Your task to perform on an android device: turn on notifications settings in the gmail app Image 0: 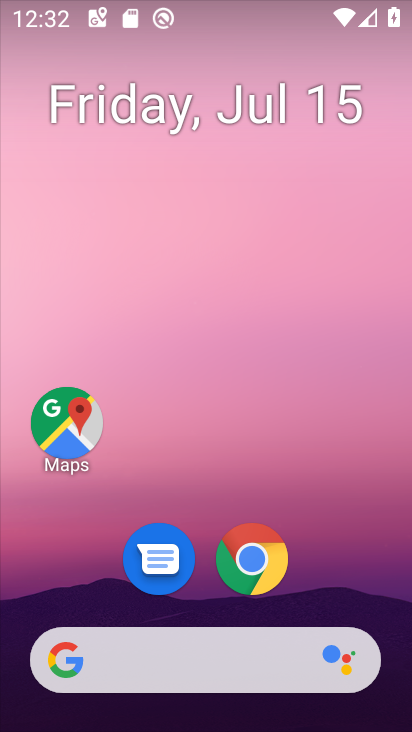
Step 0: drag from (359, 564) to (406, 112)
Your task to perform on an android device: turn on notifications settings in the gmail app Image 1: 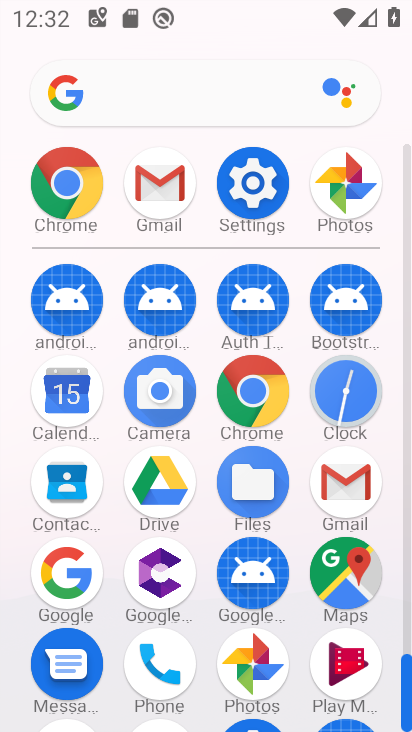
Step 1: click (348, 480)
Your task to perform on an android device: turn on notifications settings in the gmail app Image 2: 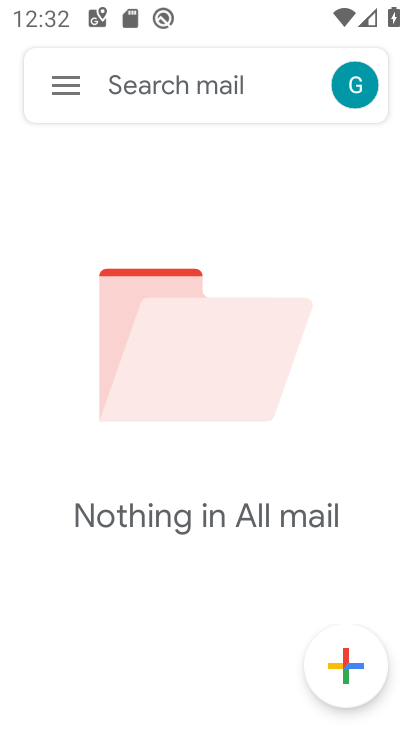
Step 2: click (67, 85)
Your task to perform on an android device: turn on notifications settings in the gmail app Image 3: 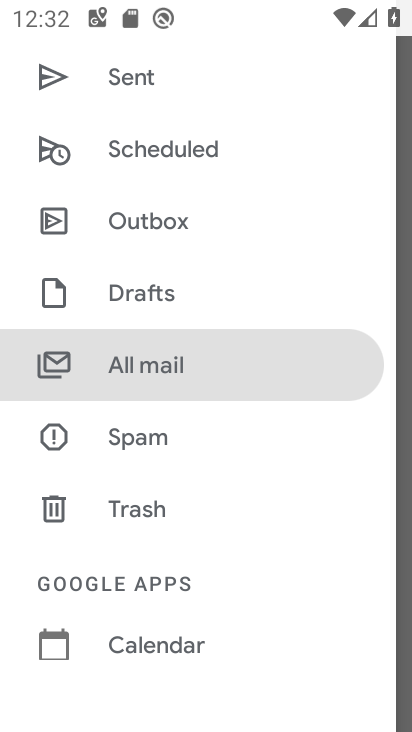
Step 3: drag from (287, 560) to (289, 394)
Your task to perform on an android device: turn on notifications settings in the gmail app Image 4: 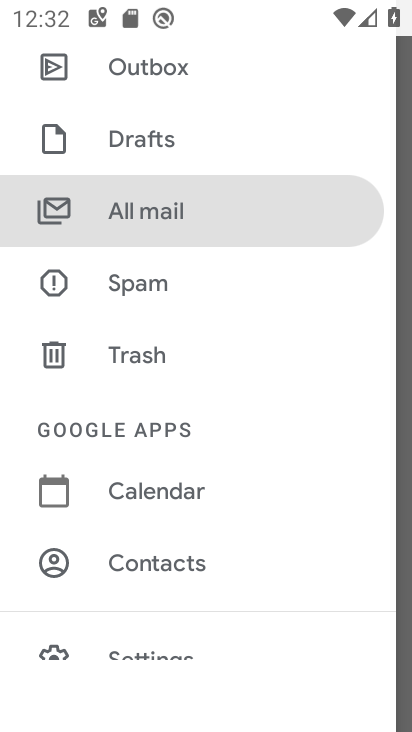
Step 4: drag from (292, 478) to (293, 386)
Your task to perform on an android device: turn on notifications settings in the gmail app Image 5: 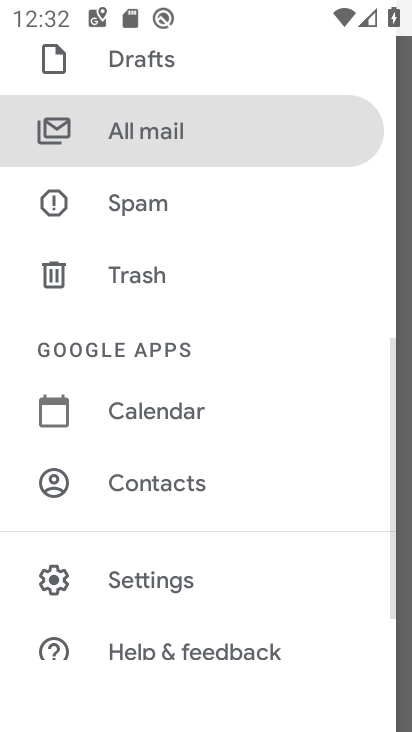
Step 5: drag from (294, 519) to (310, 426)
Your task to perform on an android device: turn on notifications settings in the gmail app Image 6: 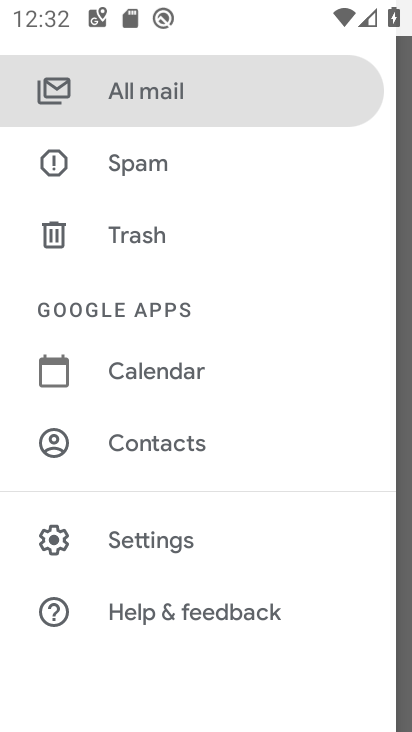
Step 6: click (235, 552)
Your task to perform on an android device: turn on notifications settings in the gmail app Image 7: 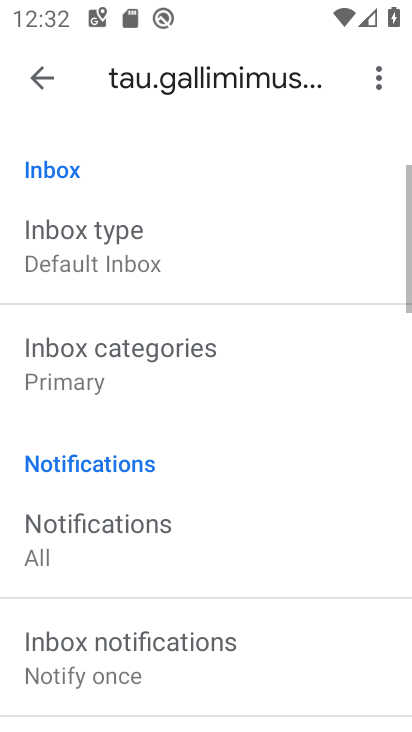
Step 7: drag from (305, 511) to (308, 416)
Your task to perform on an android device: turn on notifications settings in the gmail app Image 8: 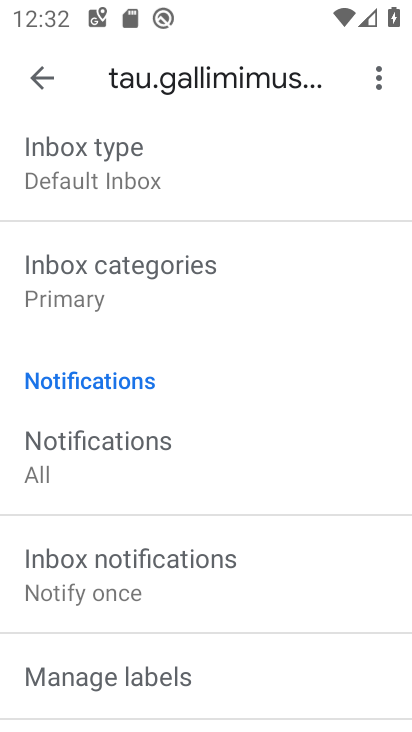
Step 8: drag from (308, 531) to (311, 453)
Your task to perform on an android device: turn on notifications settings in the gmail app Image 9: 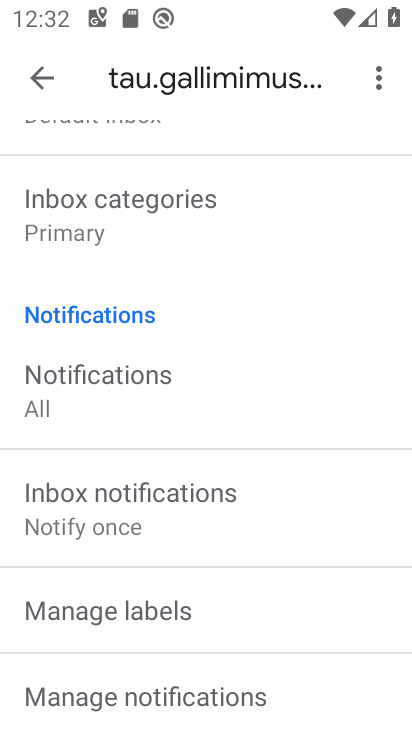
Step 9: drag from (311, 538) to (314, 452)
Your task to perform on an android device: turn on notifications settings in the gmail app Image 10: 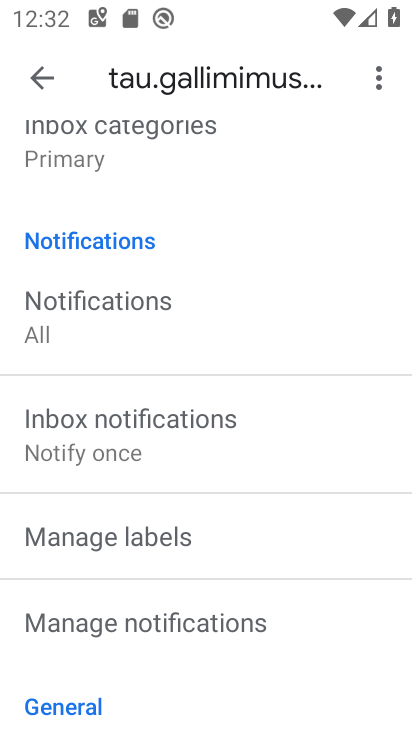
Step 10: drag from (327, 562) to (326, 455)
Your task to perform on an android device: turn on notifications settings in the gmail app Image 11: 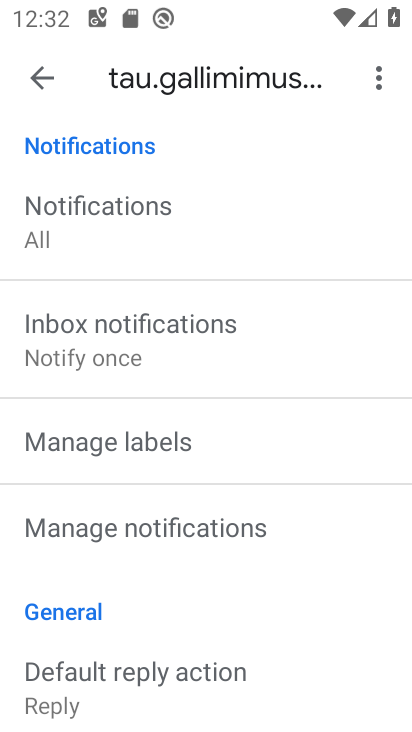
Step 11: click (315, 531)
Your task to perform on an android device: turn on notifications settings in the gmail app Image 12: 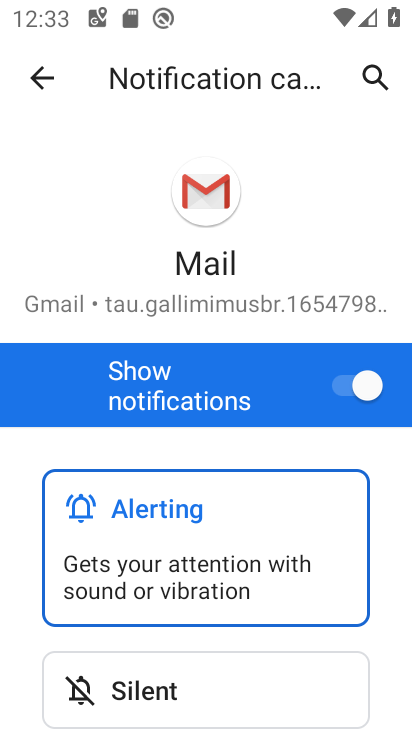
Step 12: task complete